Your task to perform on an android device: toggle data saver in the chrome app Image 0: 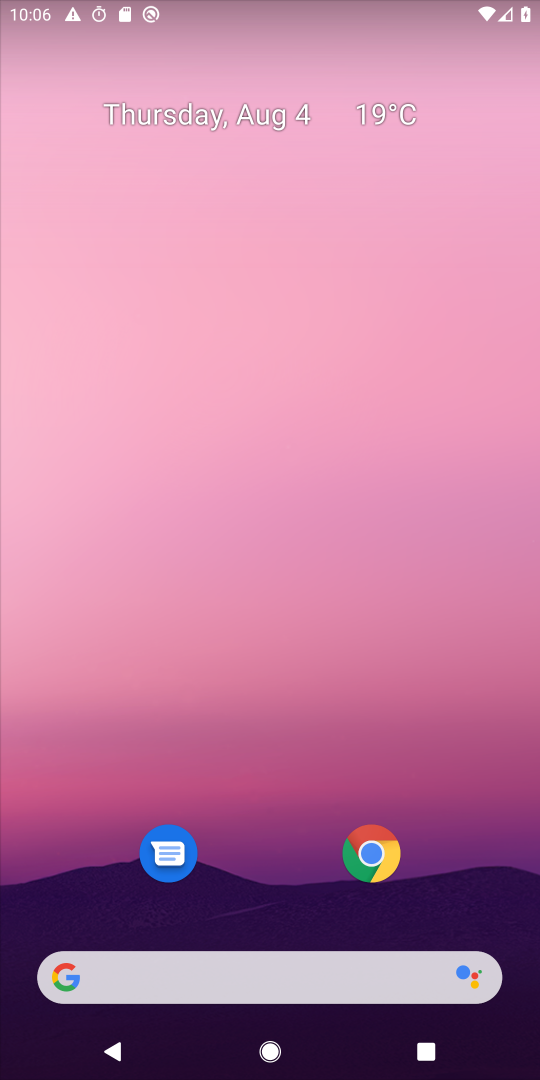
Step 0: drag from (274, 937) to (319, 121)
Your task to perform on an android device: toggle data saver in the chrome app Image 1: 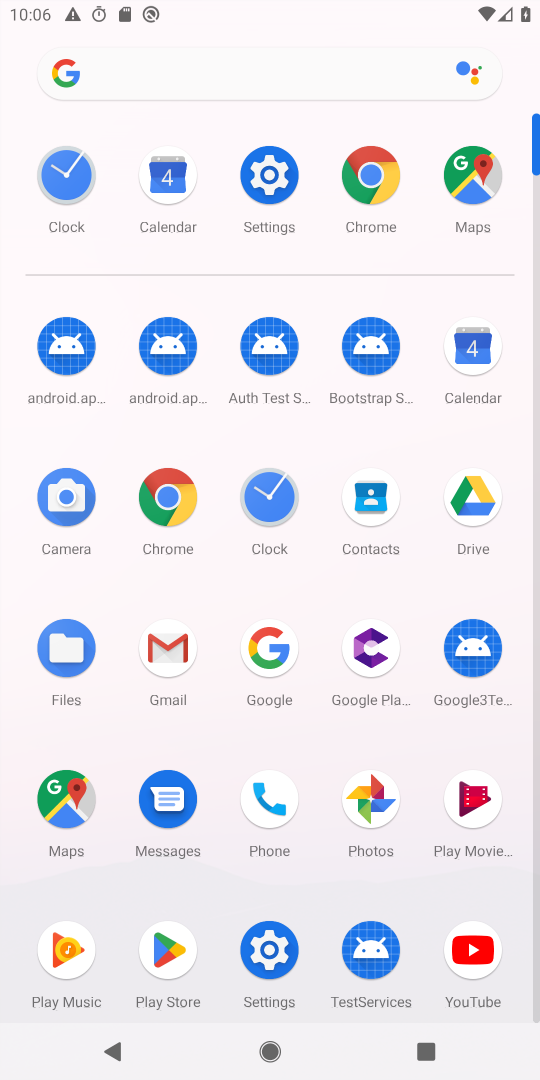
Step 1: click (165, 510)
Your task to perform on an android device: toggle data saver in the chrome app Image 2: 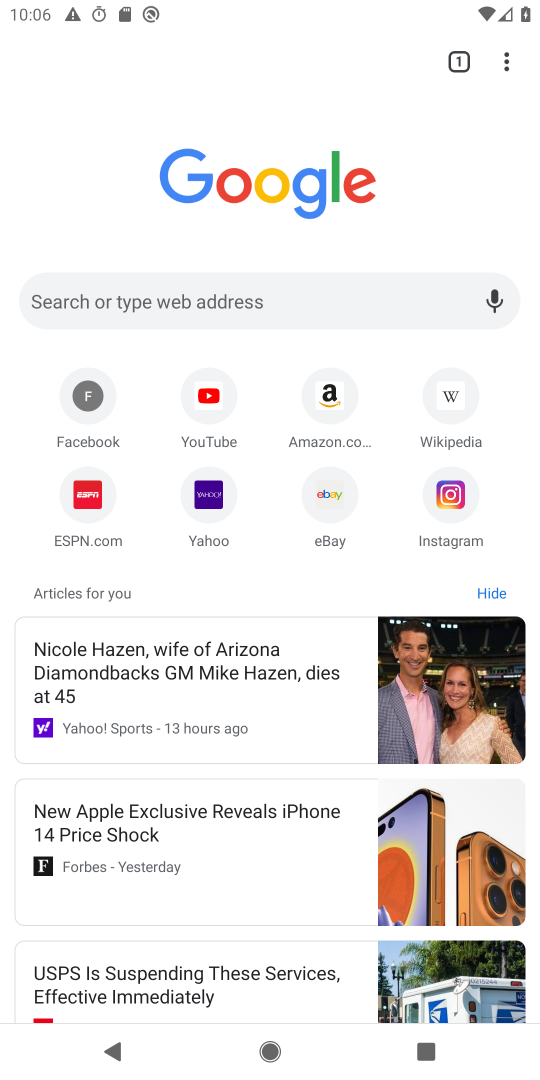
Step 2: click (516, 49)
Your task to perform on an android device: toggle data saver in the chrome app Image 3: 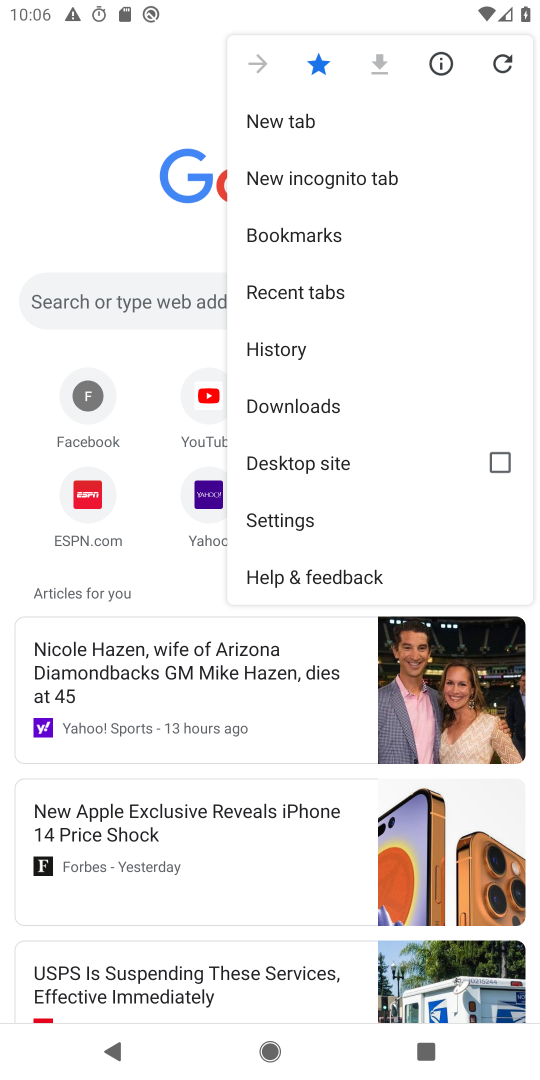
Step 3: click (295, 529)
Your task to perform on an android device: toggle data saver in the chrome app Image 4: 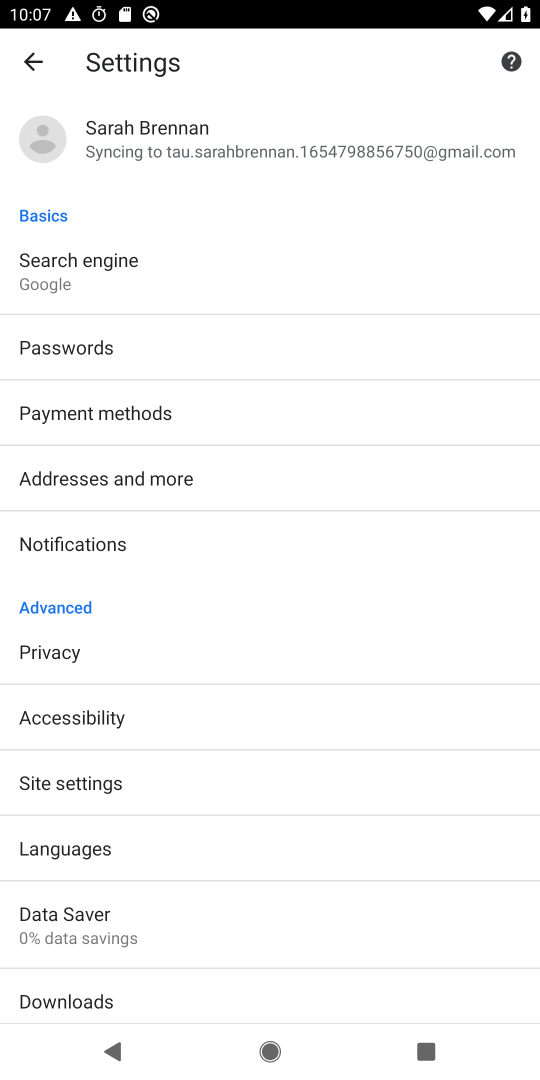
Step 4: click (86, 910)
Your task to perform on an android device: toggle data saver in the chrome app Image 5: 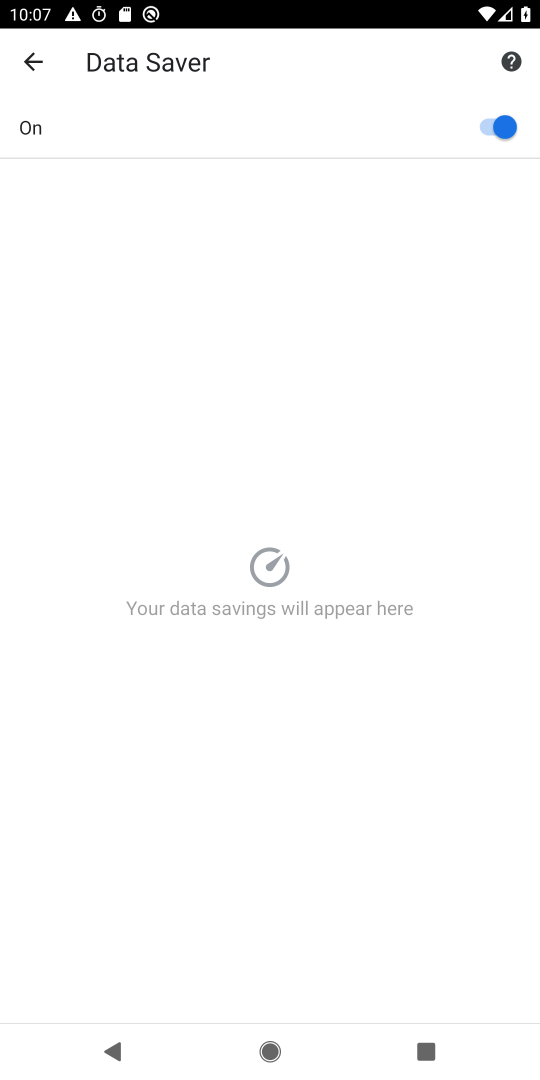
Step 5: task complete